Your task to perform on an android device: What's on my calendar tomorrow? Image 0: 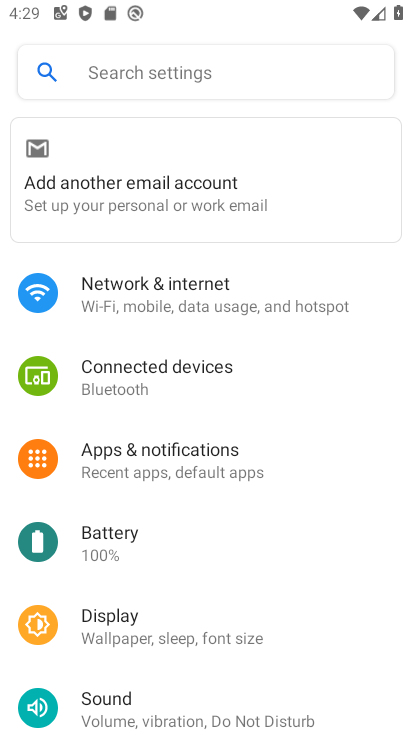
Step 0: press home button
Your task to perform on an android device: What's on my calendar tomorrow? Image 1: 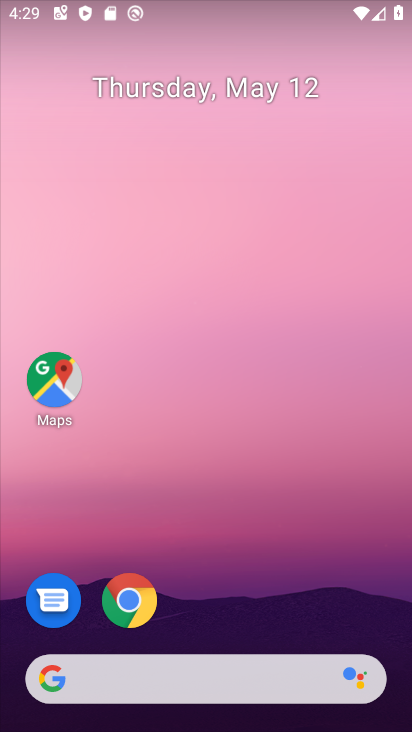
Step 1: drag from (227, 473) to (246, 319)
Your task to perform on an android device: What's on my calendar tomorrow? Image 2: 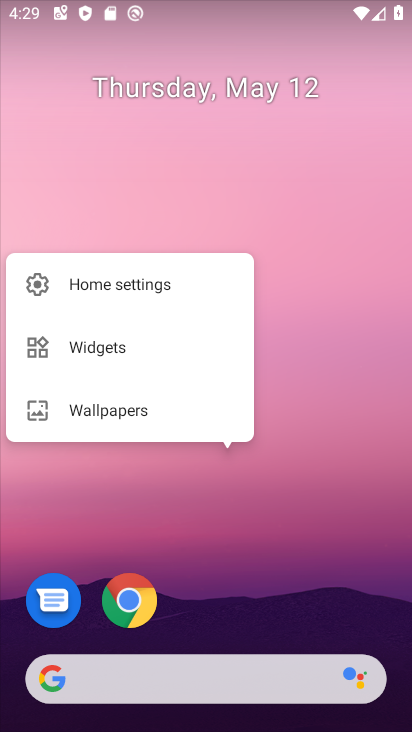
Step 2: click (282, 527)
Your task to perform on an android device: What's on my calendar tomorrow? Image 3: 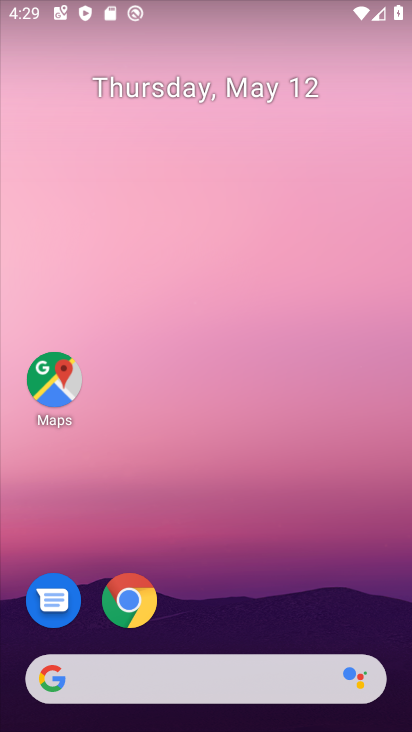
Step 3: drag from (213, 609) to (292, 69)
Your task to perform on an android device: What's on my calendar tomorrow? Image 4: 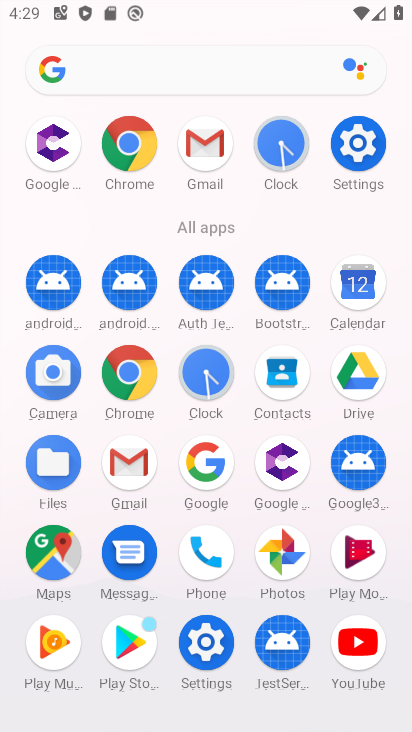
Step 4: click (383, 292)
Your task to perform on an android device: What's on my calendar tomorrow? Image 5: 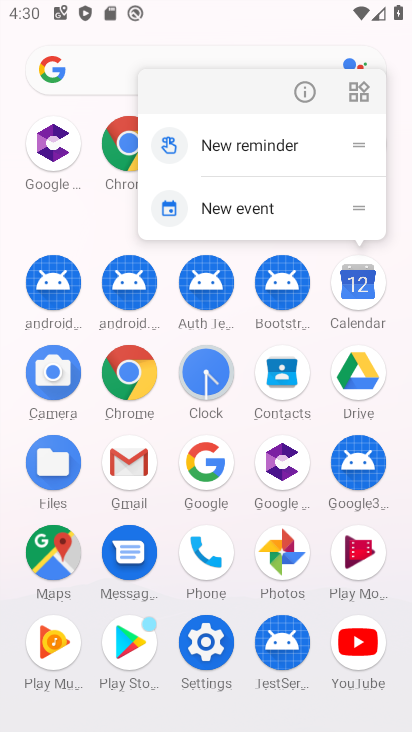
Step 5: click (303, 95)
Your task to perform on an android device: What's on my calendar tomorrow? Image 6: 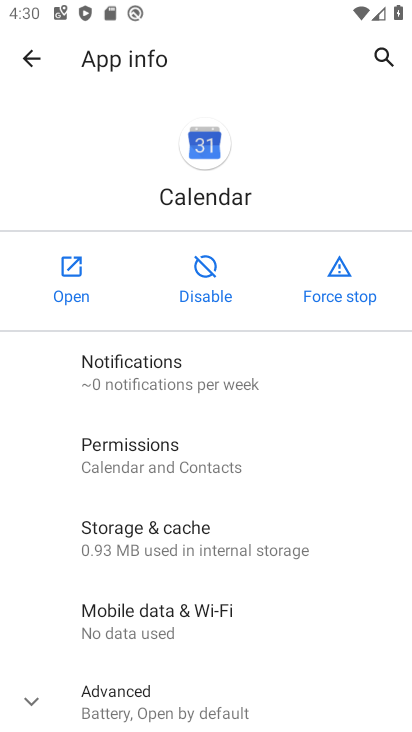
Step 6: click (75, 260)
Your task to perform on an android device: What's on my calendar tomorrow? Image 7: 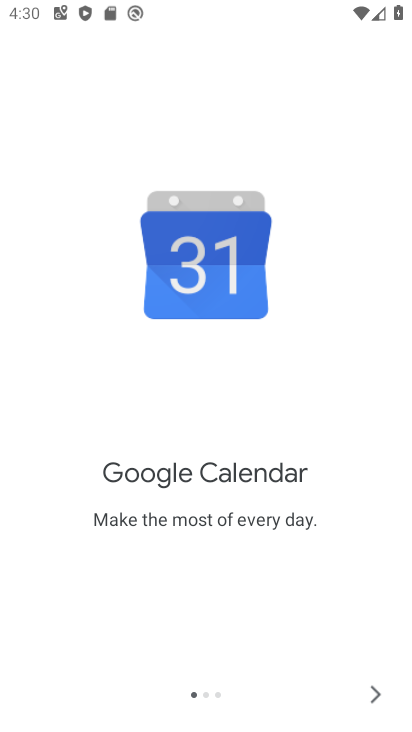
Step 7: click (374, 702)
Your task to perform on an android device: What's on my calendar tomorrow? Image 8: 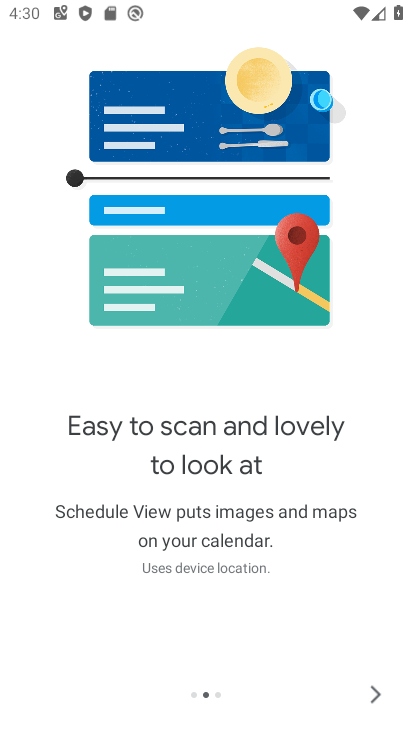
Step 8: click (377, 692)
Your task to perform on an android device: What's on my calendar tomorrow? Image 9: 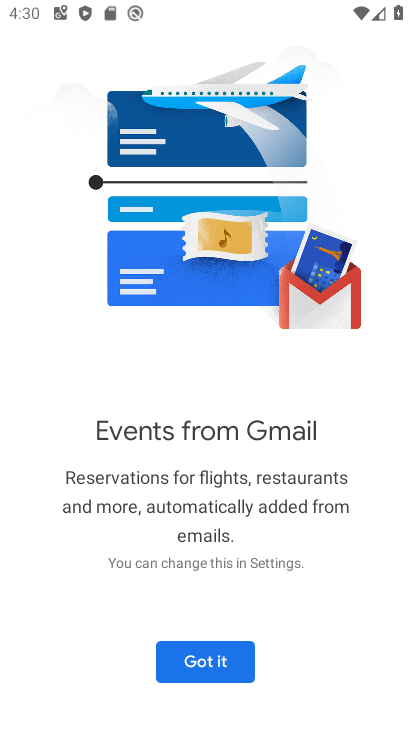
Step 9: click (362, 676)
Your task to perform on an android device: What's on my calendar tomorrow? Image 10: 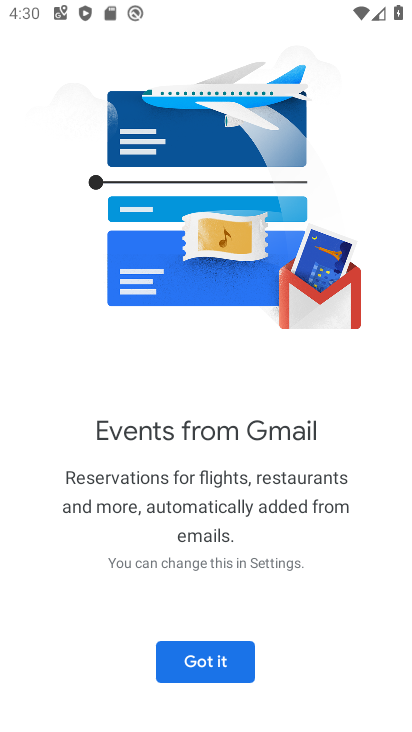
Step 10: click (227, 665)
Your task to perform on an android device: What's on my calendar tomorrow? Image 11: 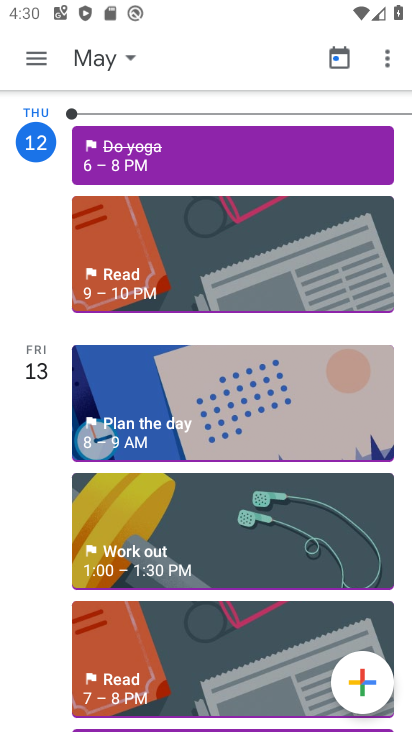
Step 11: click (123, 68)
Your task to perform on an android device: What's on my calendar tomorrow? Image 12: 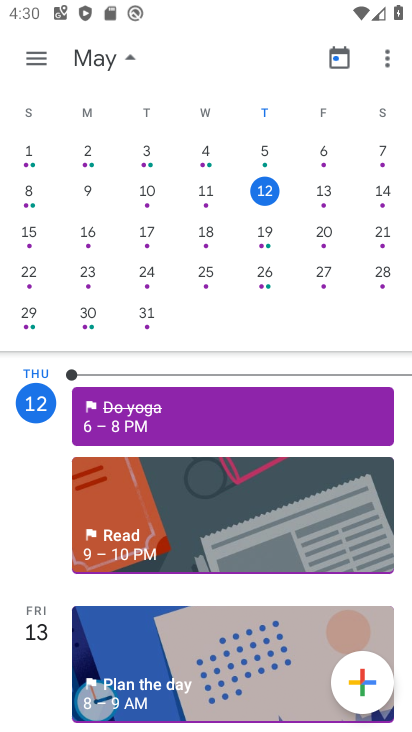
Step 12: click (316, 192)
Your task to perform on an android device: What's on my calendar tomorrow? Image 13: 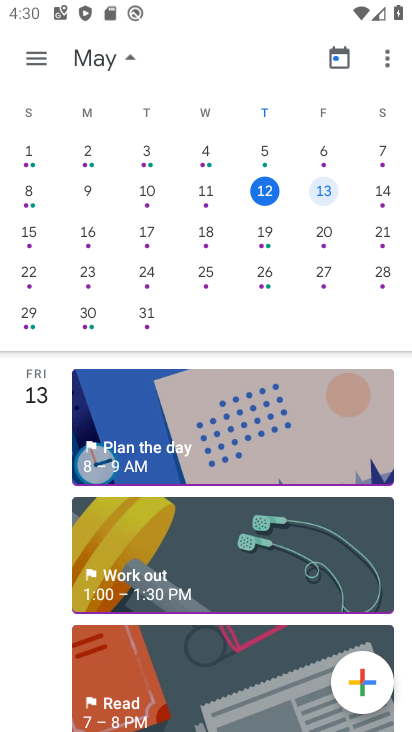
Step 13: task complete